Your task to perform on an android device: Go to network settings Image 0: 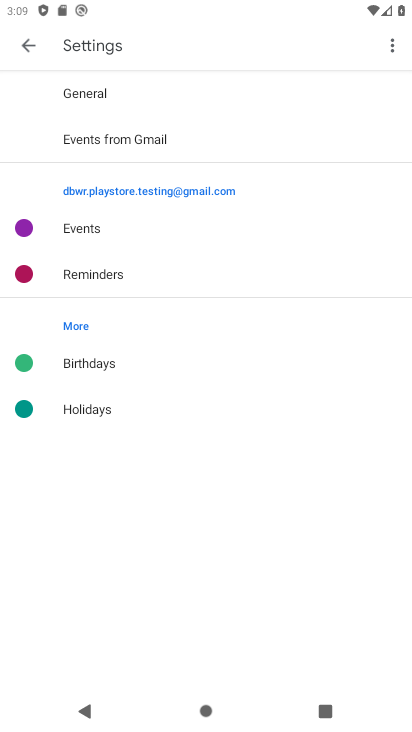
Step 0: press home button
Your task to perform on an android device: Go to network settings Image 1: 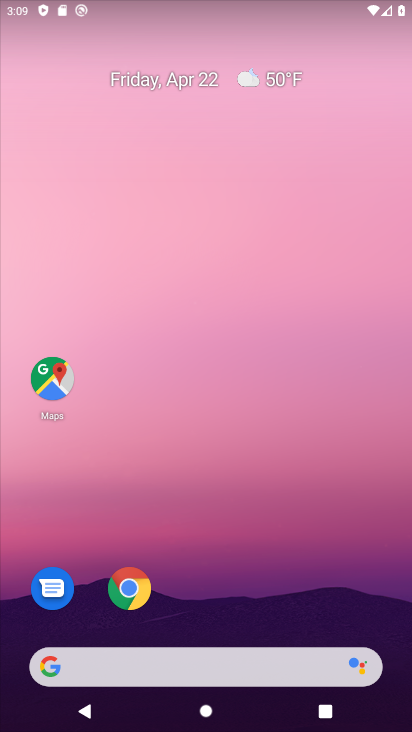
Step 1: drag from (347, 607) to (343, 66)
Your task to perform on an android device: Go to network settings Image 2: 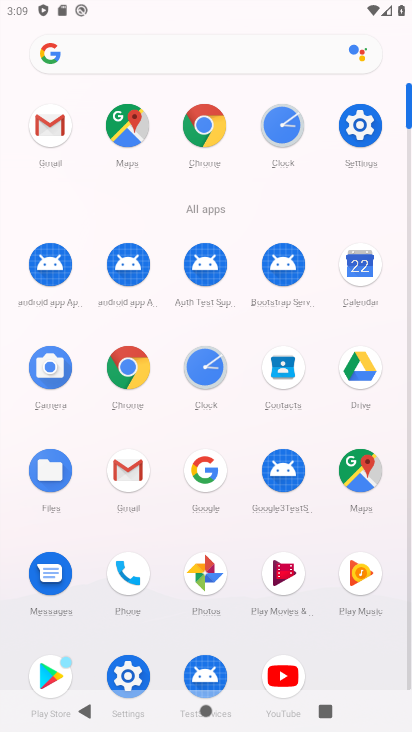
Step 2: click (361, 123)
Your task to perform on an android device: Go to network settings Image 3: 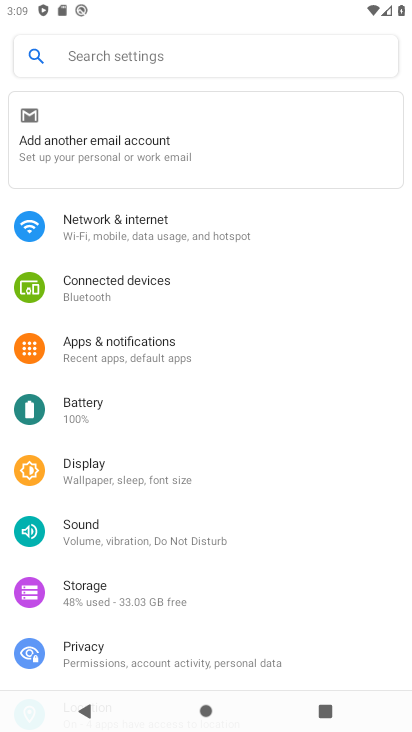
Step 3: drag from (341, 607) to (337, 429)
Your task to perform on an android device: Go to network settings Image 4: 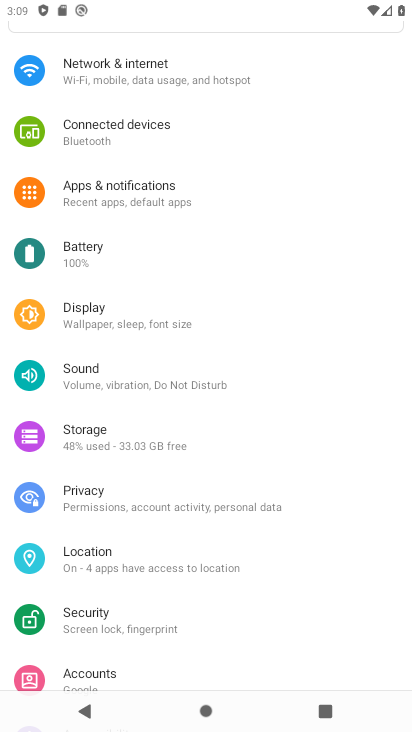
Step 4: drag from (339, 611) to (352, 390)
Your task to perform on an android device: Go to network settings Image 5: 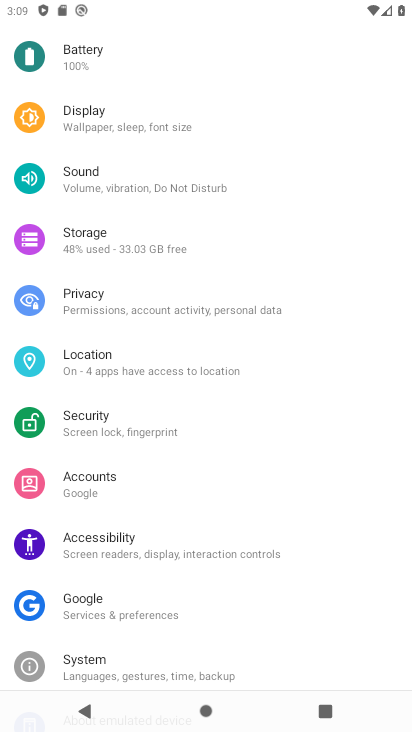
Step 5: drag from (339, 598) to (329, 357)
Your task to perform on an android device: Go to network settings Image 6: 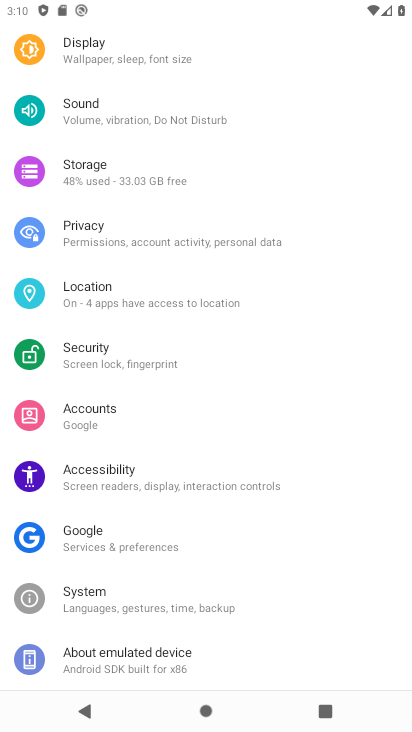
Step 6: drag from (343, 269) to (346, 417)
Your task to perform on an android device: Go to network settings Image 7: 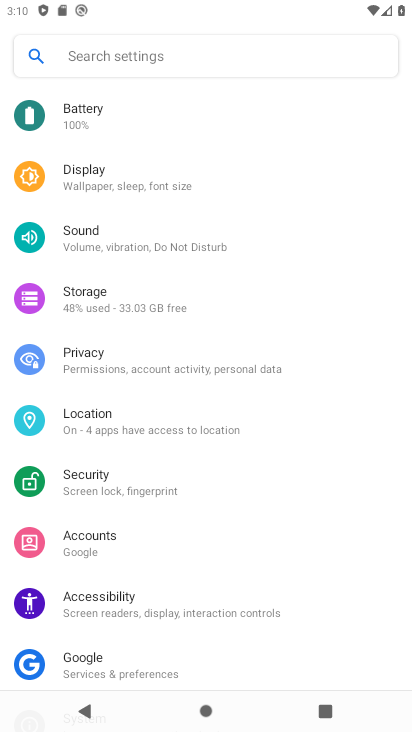
Step 7: drag from (337, 265) to (335, 394)
Your task to perform on an android device: Go to network settings Image 8: 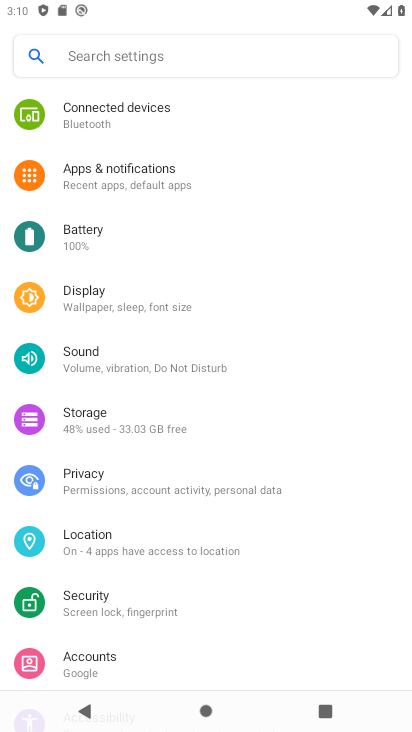
Step 8: drag from (327, 240) to (330, 428)
Your task to perform on an android device: Go to network settings Image 9: 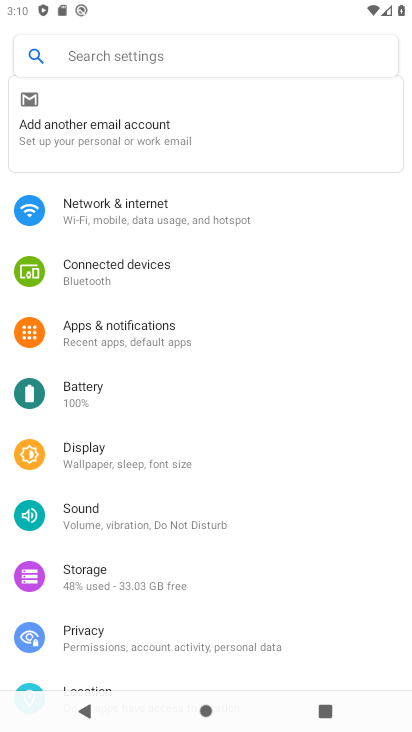
Step 9: drag from (326, 306) to (318, 357)
Your task to perform on an android device: Go to network settings Image 10: 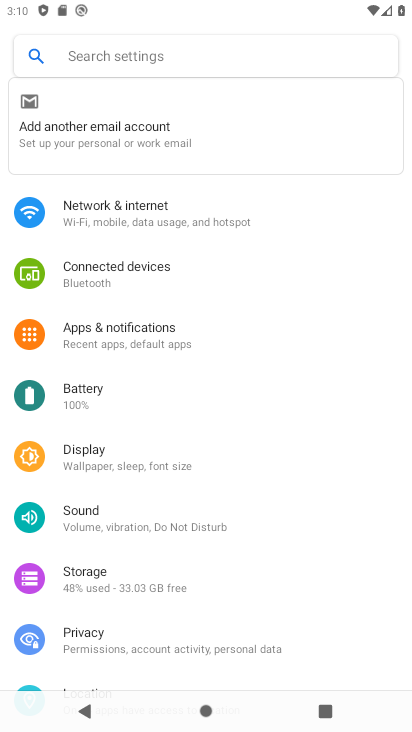
Step 10: click (217, 207)
Your task to perform on an android device: Go to network settings Image 11: 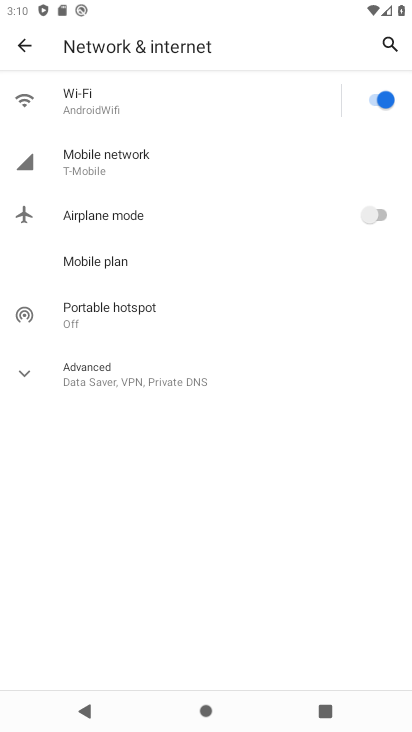
Step 11: task complete